Your task to perform on an android device: turn on translation in the chrome app Image 0: 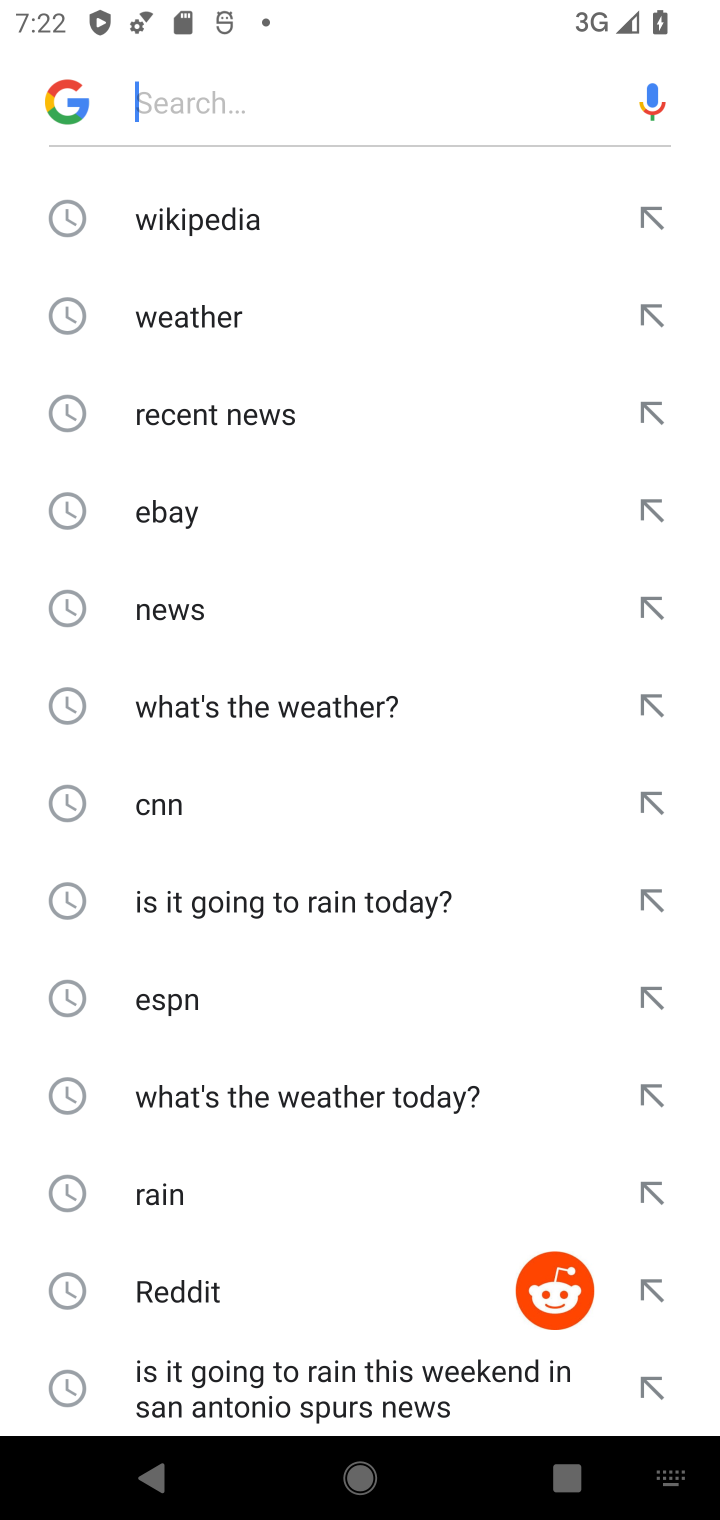
Step 0: press home button
Your task to perform on an android device: turn on translation in the chrome app Image 1: 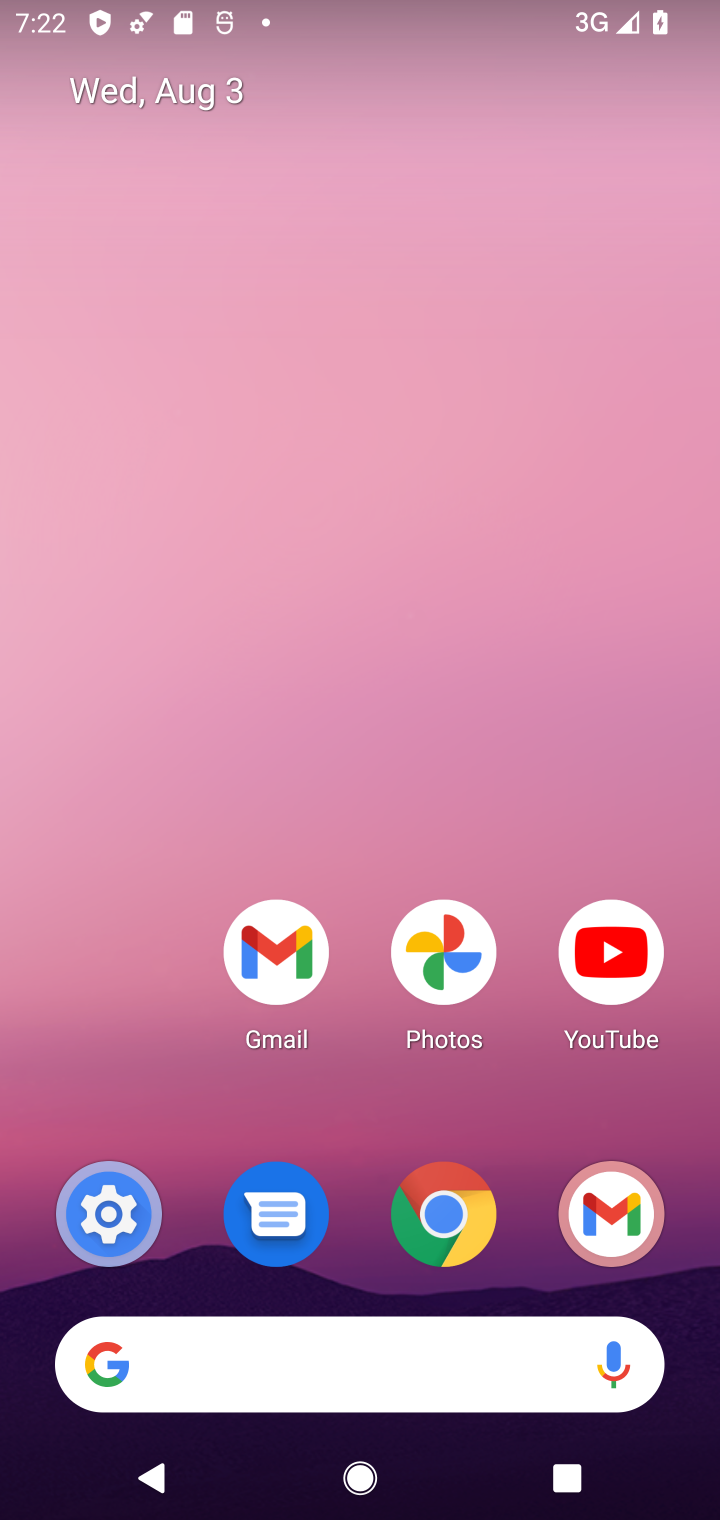
Step 1: drag from (102, 880) to (104, 181)
Your task to perform on an android device: turn on translation in the chrome app Image 2: 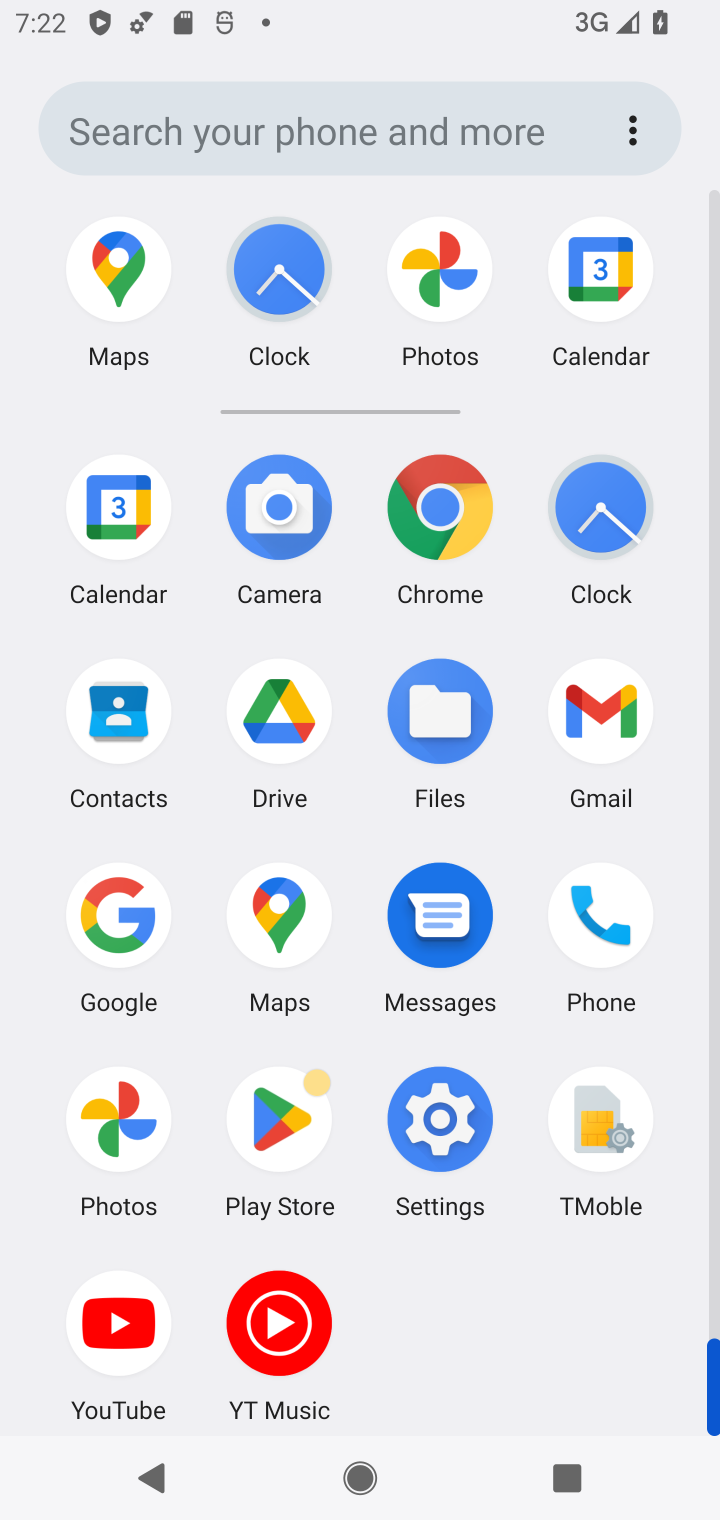
Step 2: click (414, 1132)
Your task to perform on an android device: turn on translation in the chrome app Image 3: 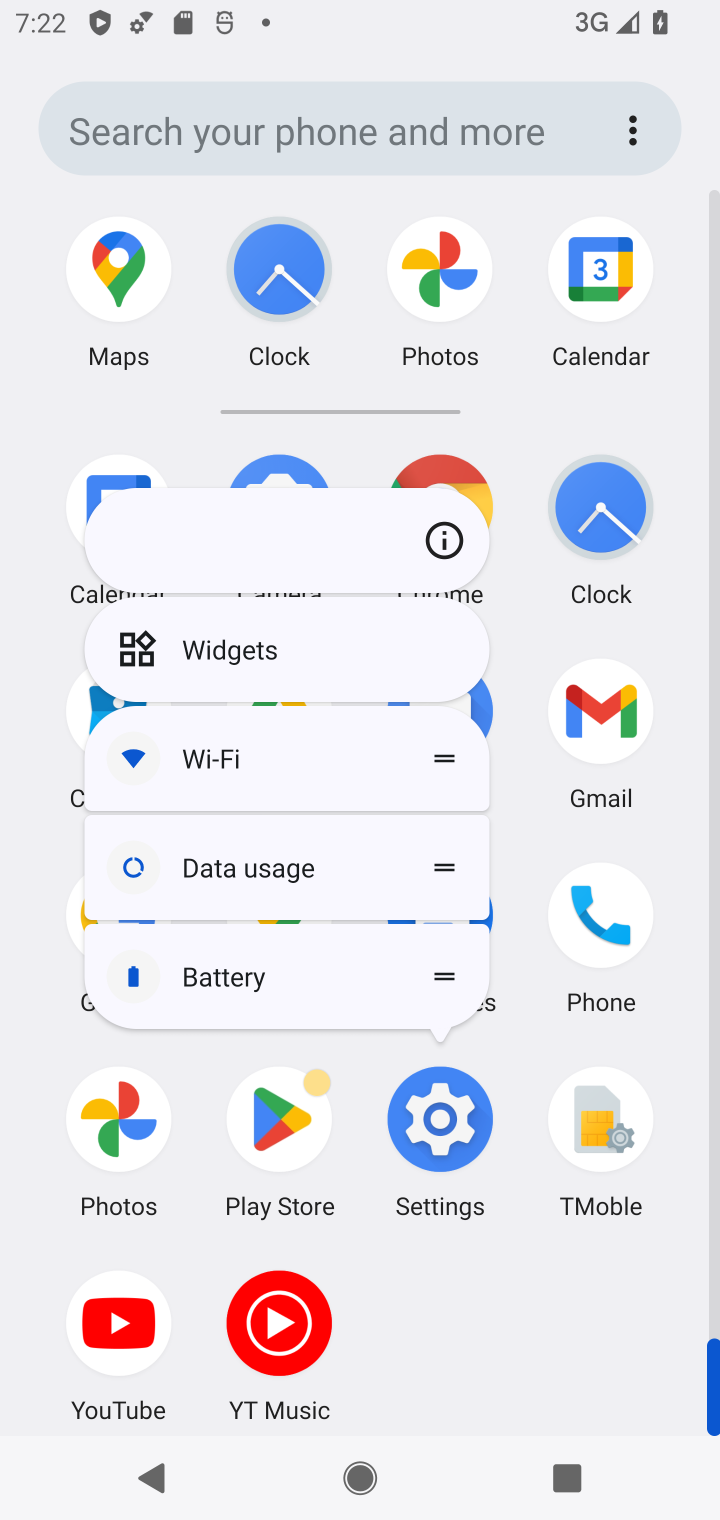
Step 3: click (414, 1128)
Your task to perform on an android device: turn on translation in the chrome app Image 4: 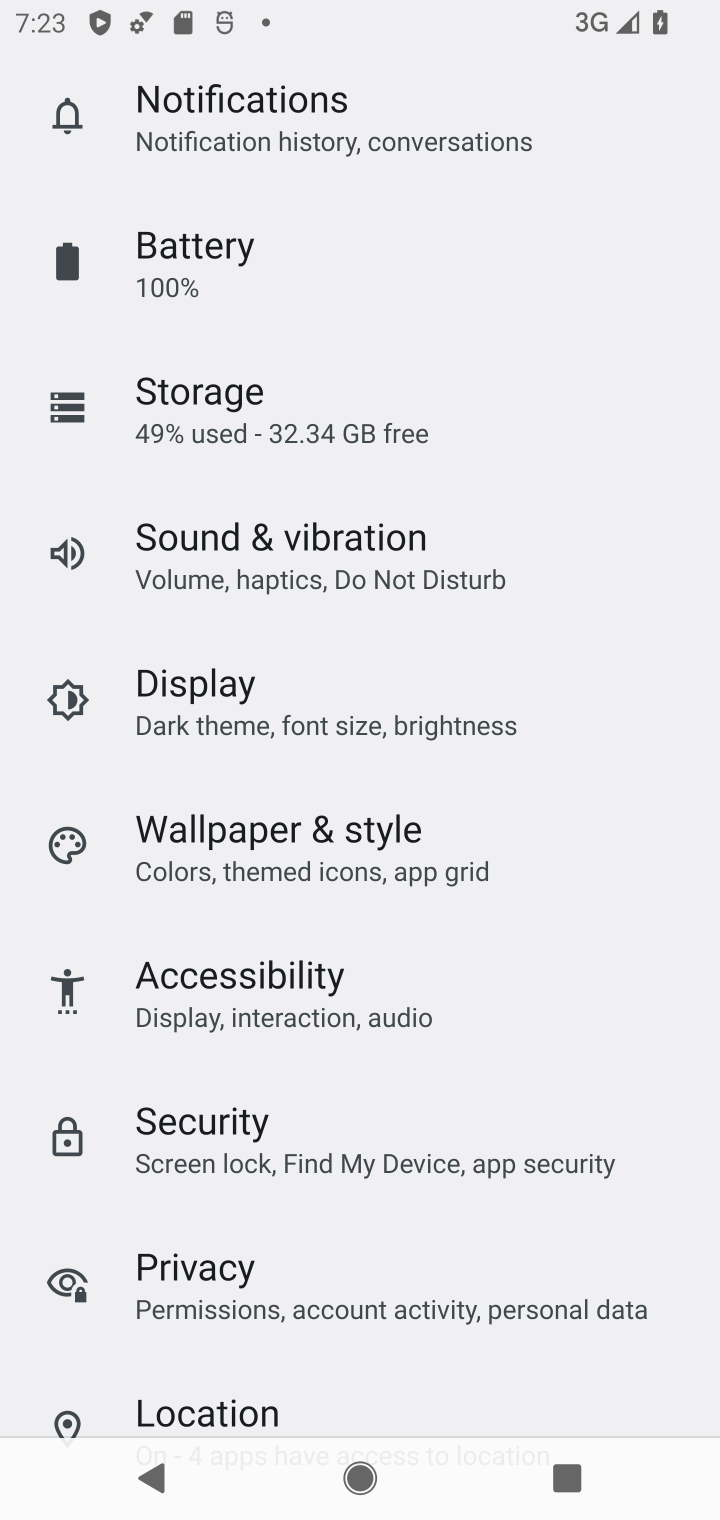
Step 4: drag from (364, 423) to (401, 1260)
Your task to perform on an android device: turn on translation in the chrome app Image 5: 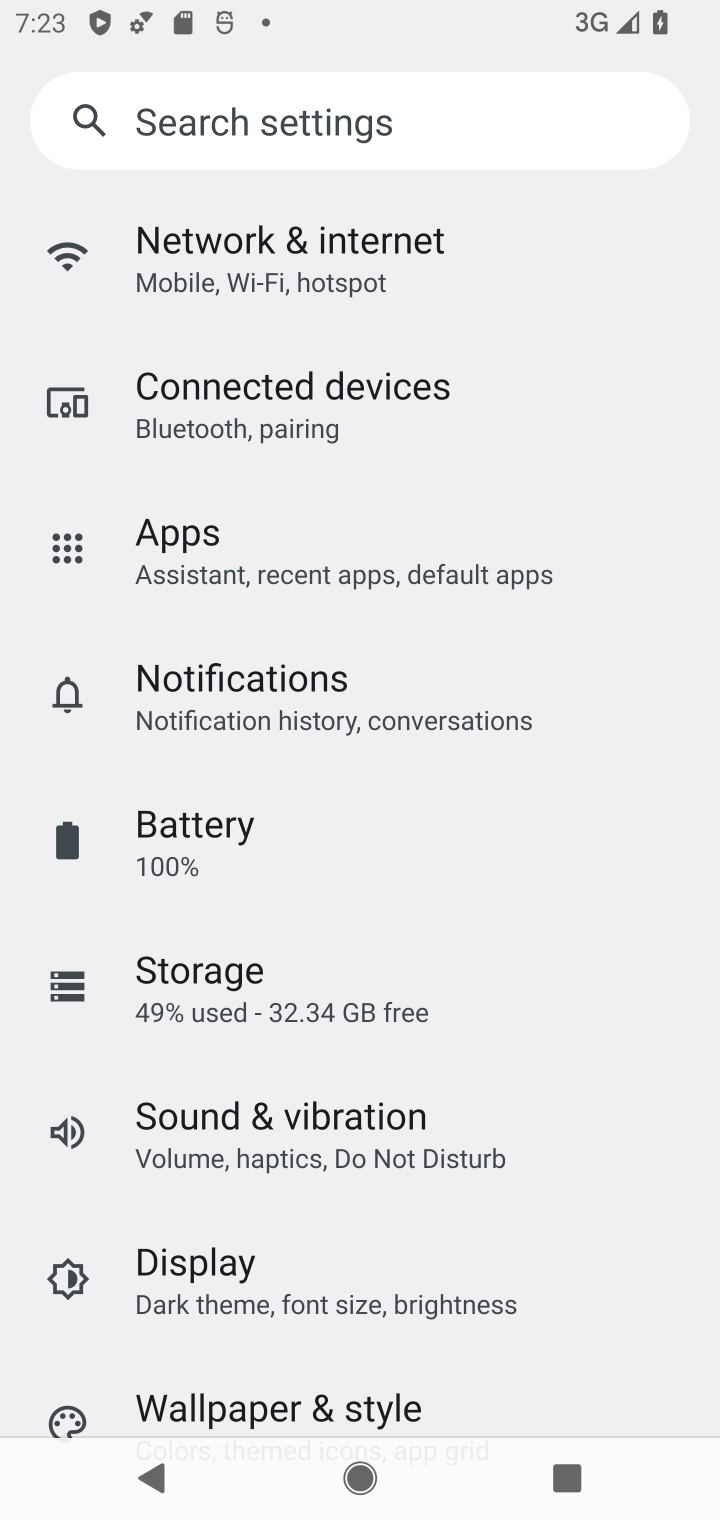
Step 5: drag from (341, 92) to (288, 1229)
Your task to perform on an android device: turn on translation in the chrome app Image 6: 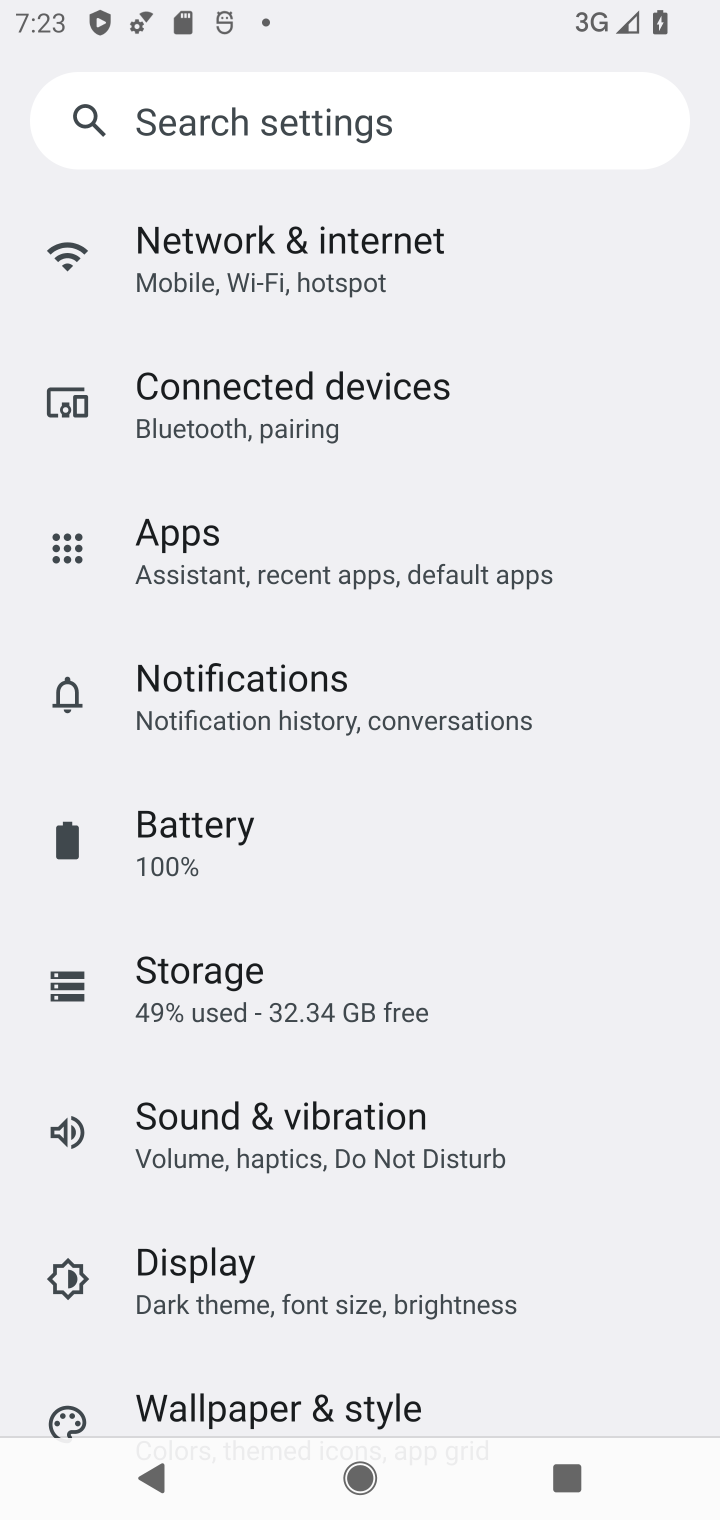
Step 6: click (293, 717)
Your task to perform on an android device: turn on translation in the chrome app Image 7: 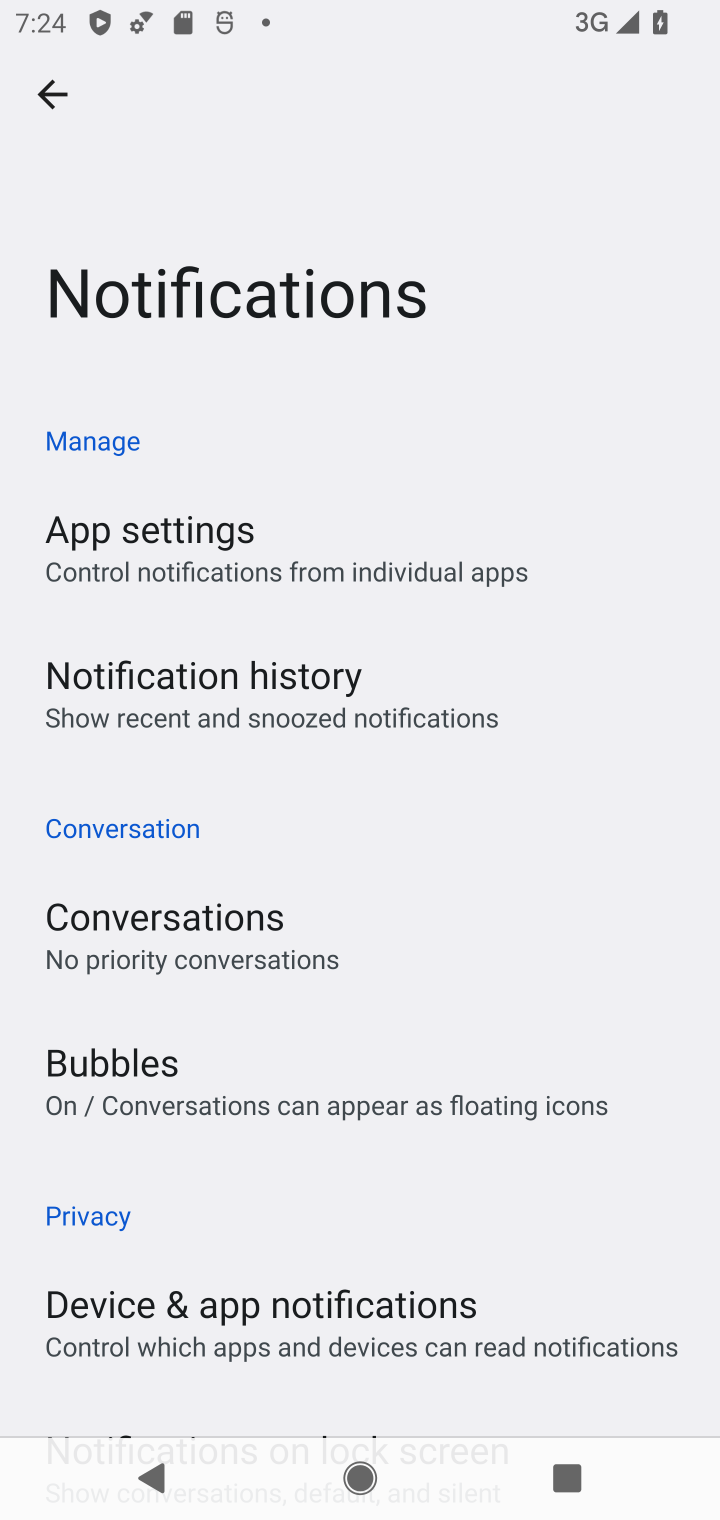
Step 7: click (53, 114)
Your task to perform on an android device: turn on translation in the chrome app Image 8: 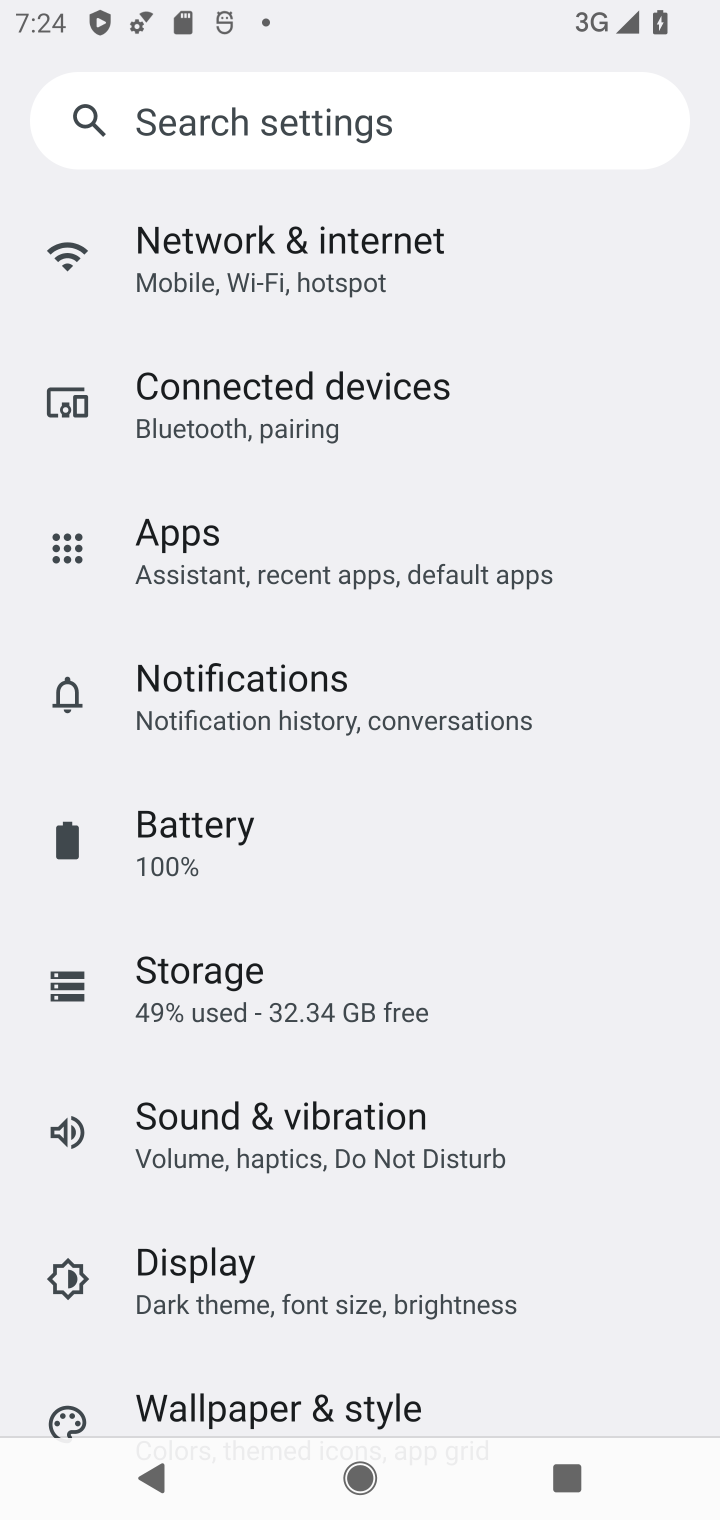
Step 8: press home button
Your task to perform on an android device: turn on translation in the chrome app Image 9: 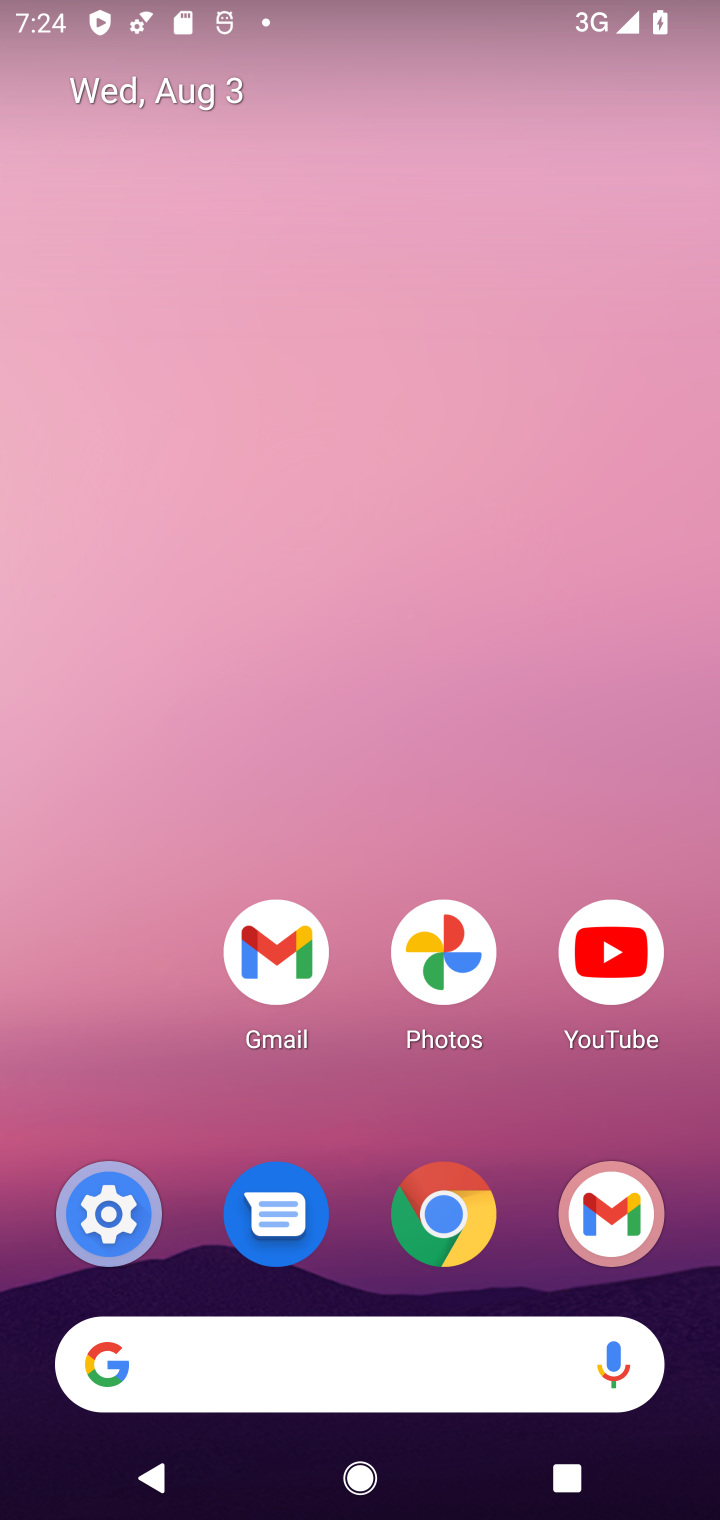
Step 9: drag from (97, 962) to (350, 163)
Your task to perform on an android device: turn on translation in the chrome app Image 10: 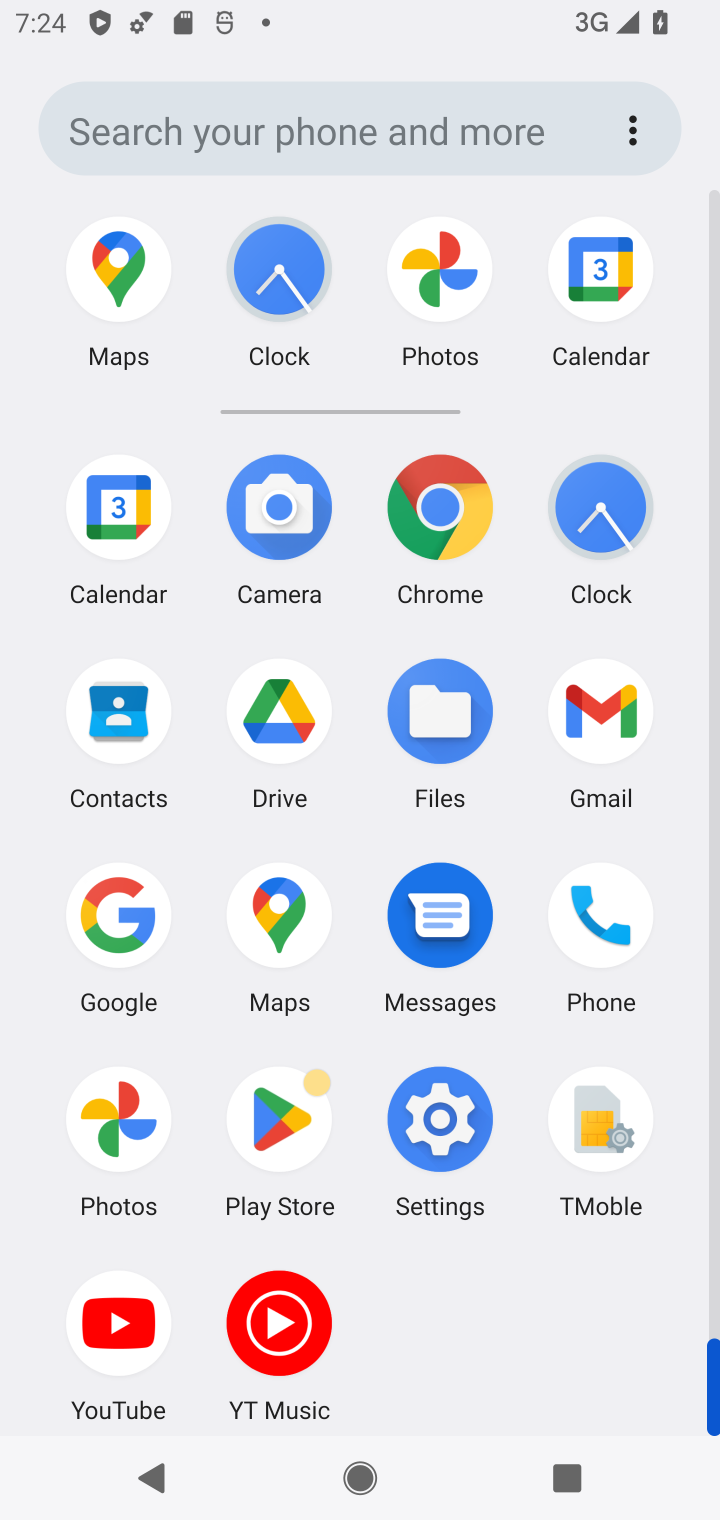
Step 10: click (417, 531)
Your task to perform on an android device: turn on translation in the chrome app Image 11: 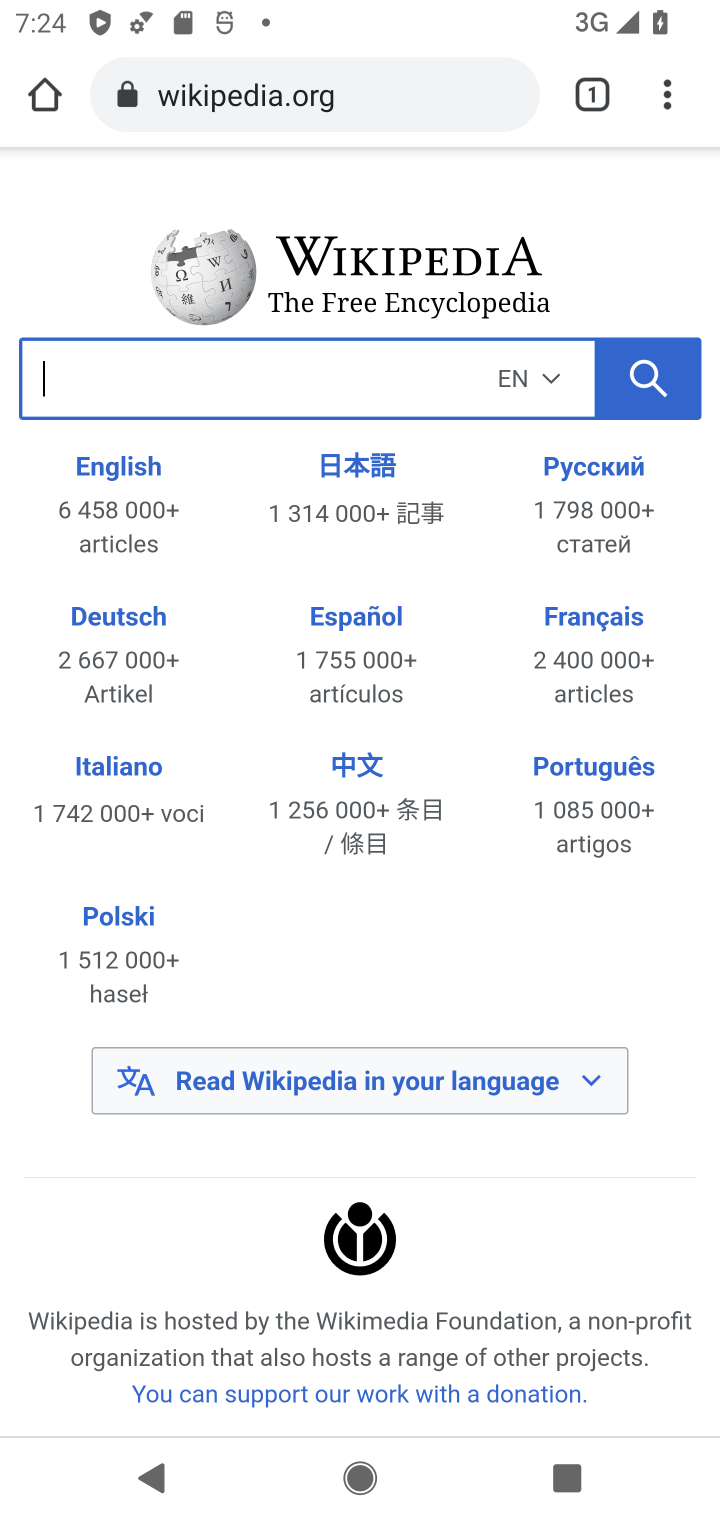
Step 11: drag from (667, 108) to (374, 1117)
Your task to perform on an android device: turn on translation in the chrome app Image 12: 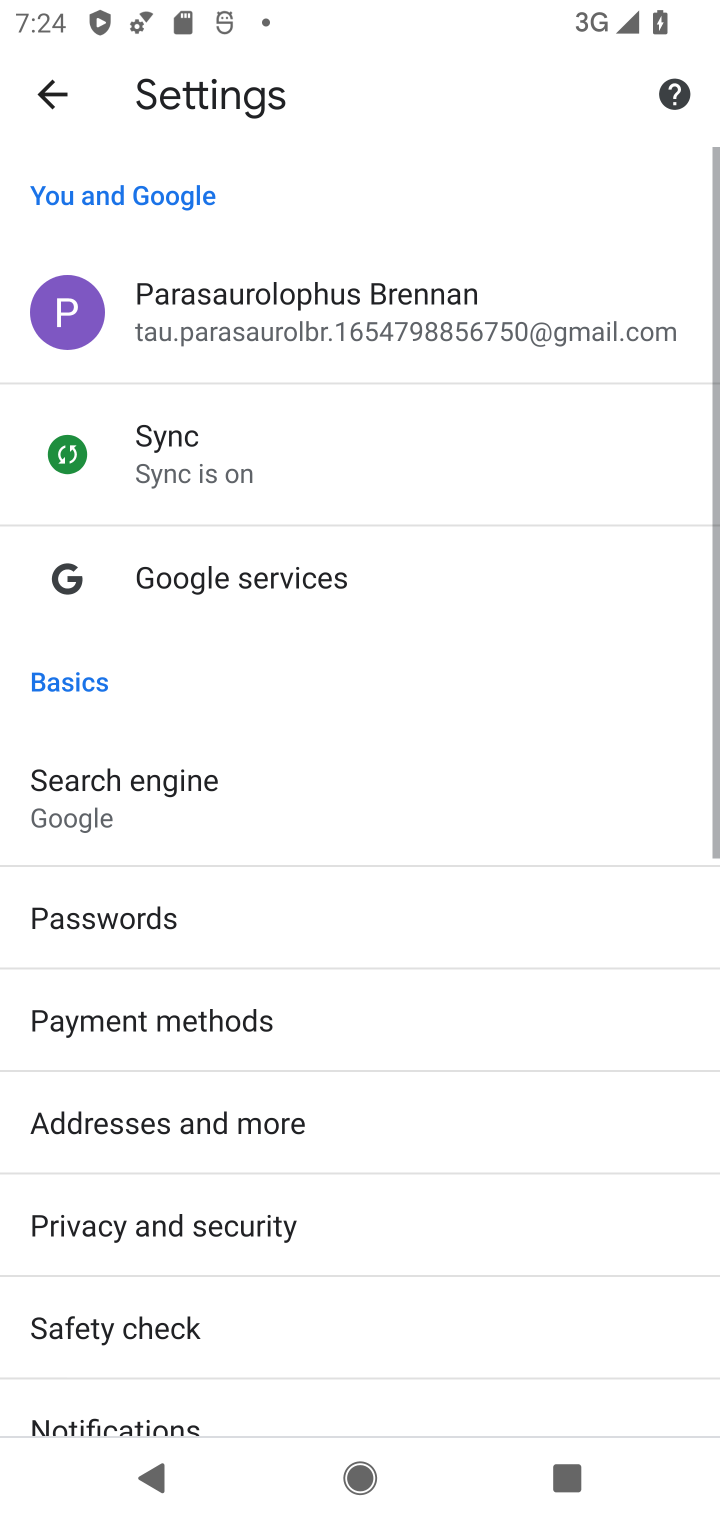
Step 12: drag from (257, 1111) to (360, 332)
Your task to perform on an android device: turn on translation in the chrome app Image 13: 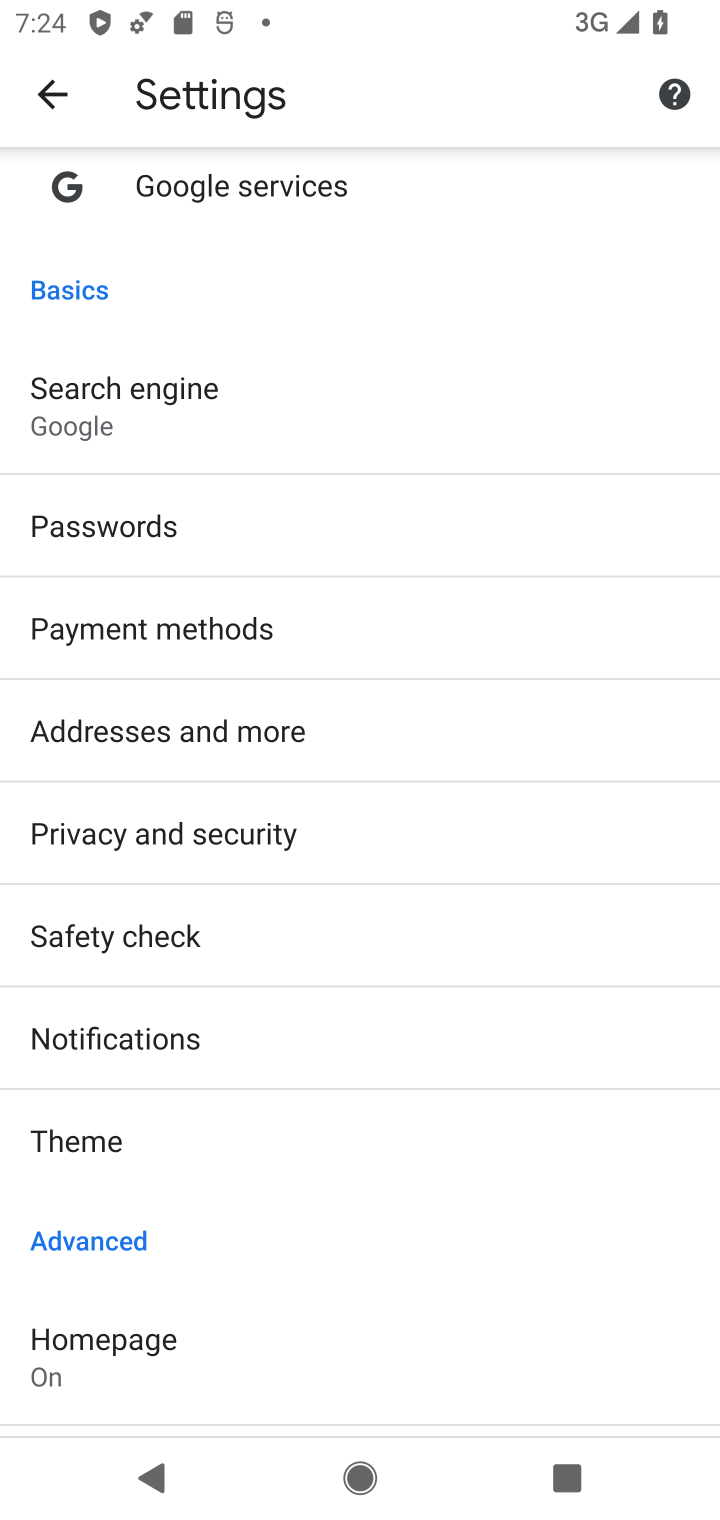
Step 13: drag from (361, 1366) to (469, 302)
Your task to perform on an android device: turn on translation in the chrome app Image 14: 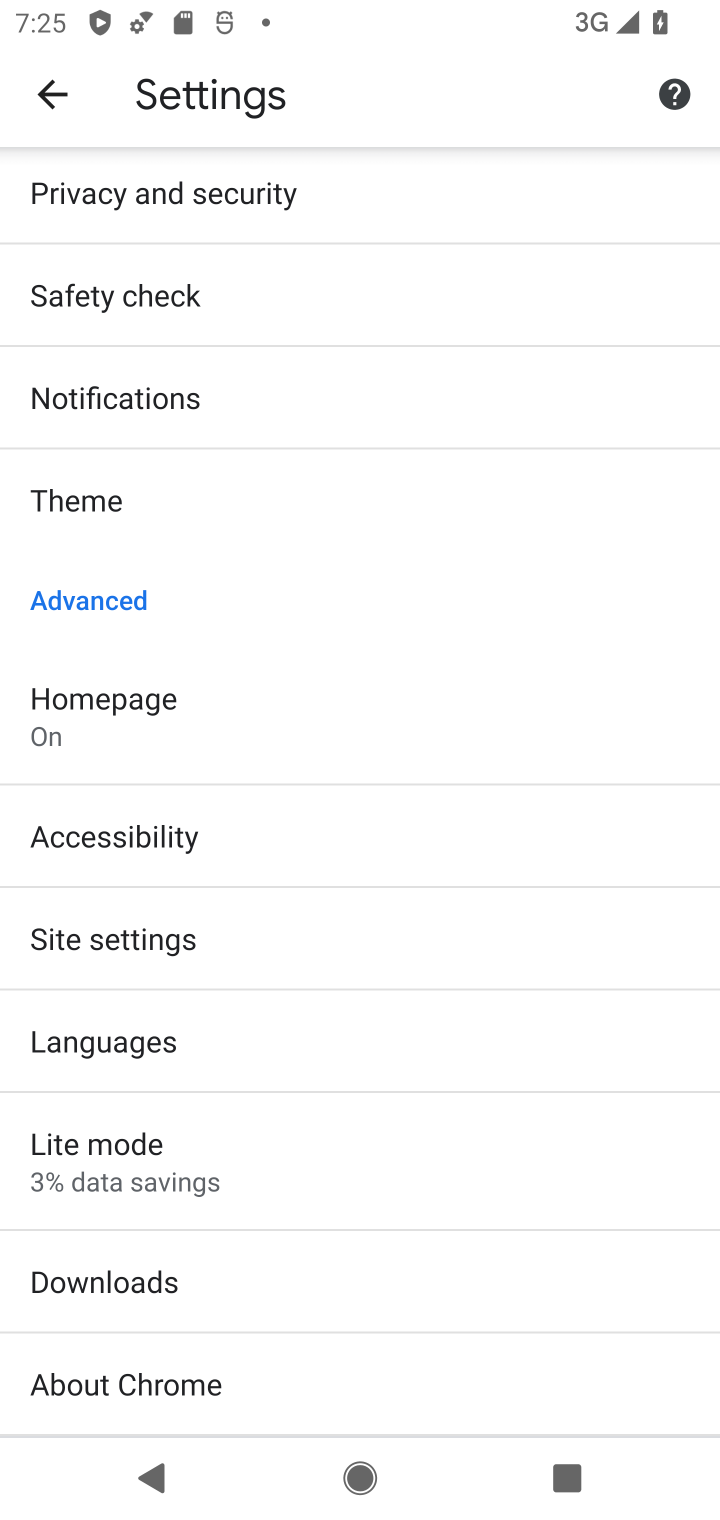
Step 14: click (217, 1034)
Your task to perform on an android device: turn on translation in the chrome app Image 15: 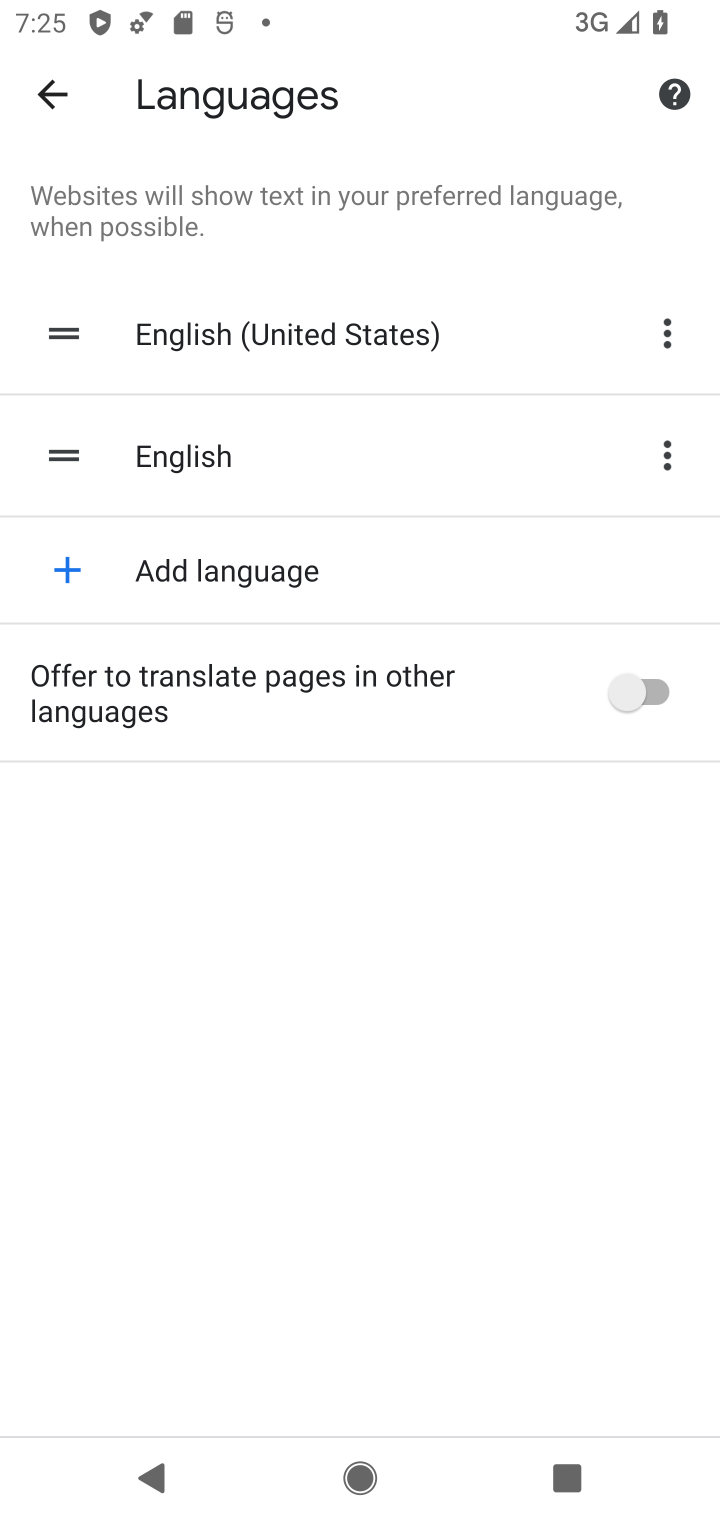
Step 15: click (655, 658)
Your task to perform on an android device: turn on translation in the chrome app Image 16: 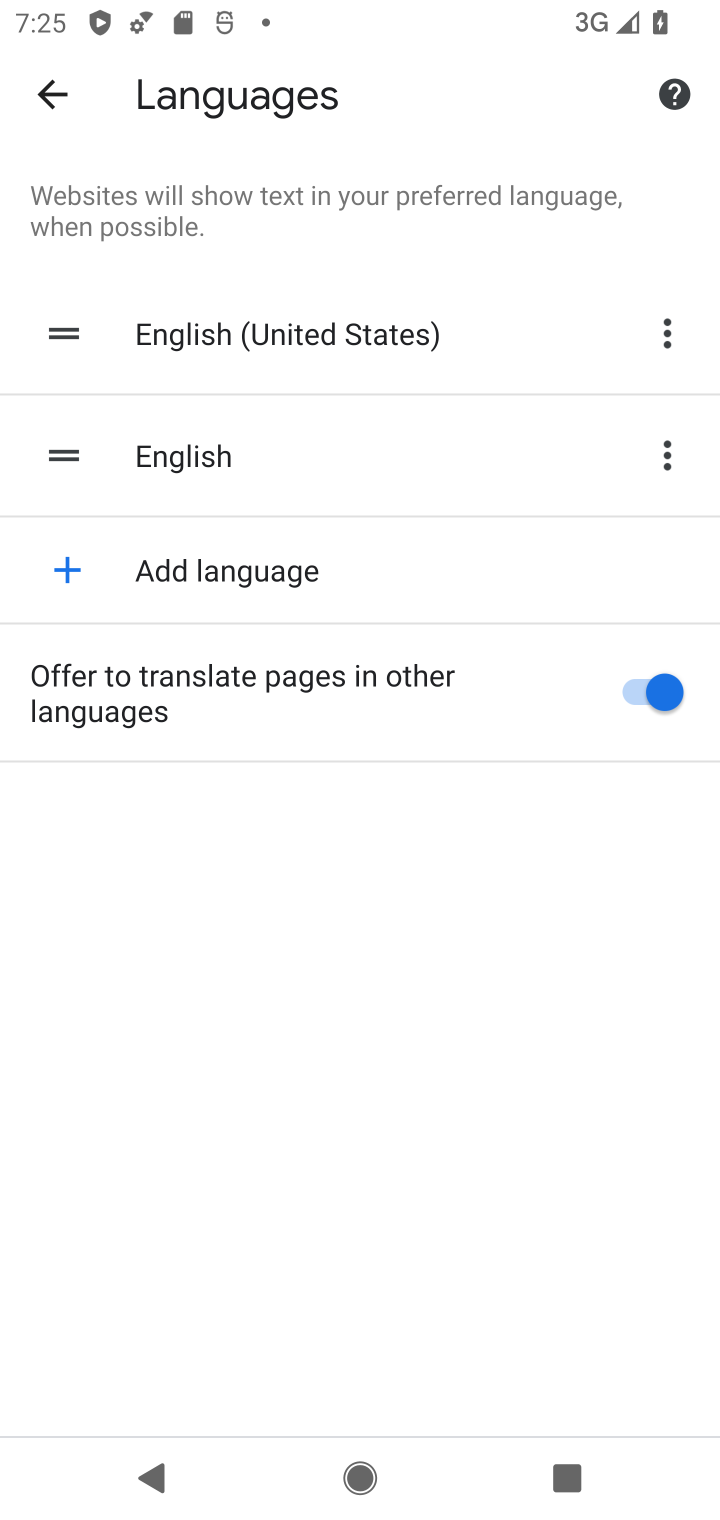
Step 16: task complete